Your task to perform on an android device: Check the news Image 0: 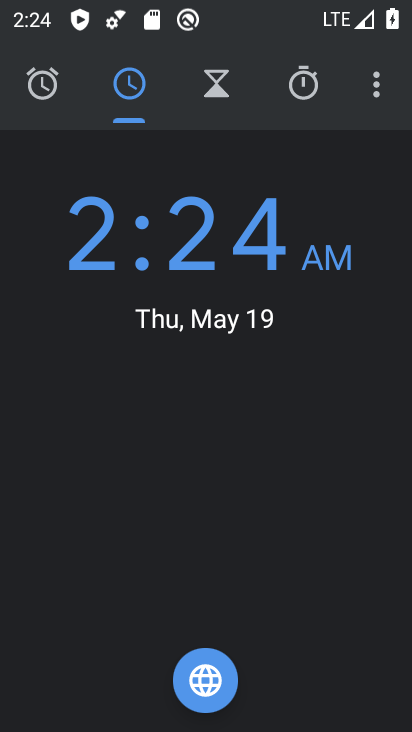
Step 0: press home button
Your task to perform on an android device: Check the news Image 1: 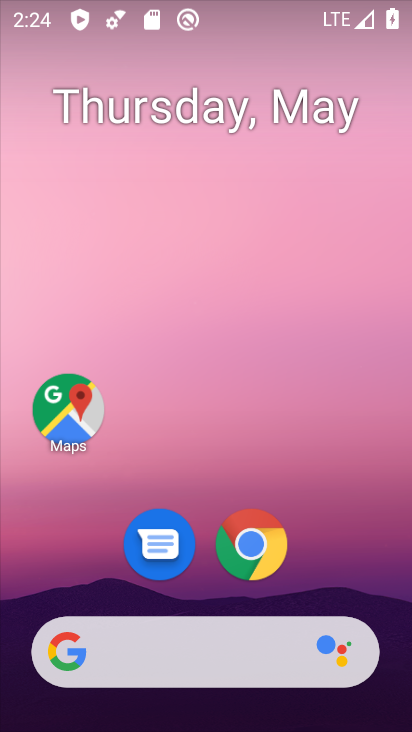
Step 1: drag from (263, 686) to (187, 202)
Your task to perform on an android device: Check the news Image 2: 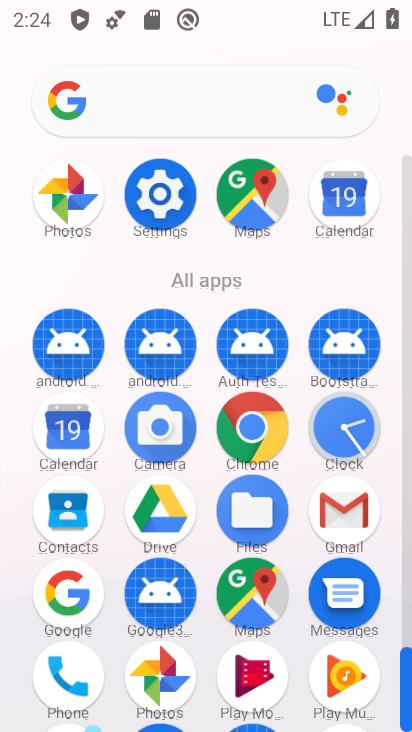
Step 2: click (257, 111)
Your task to perform on an android device: Check the news Image 3: 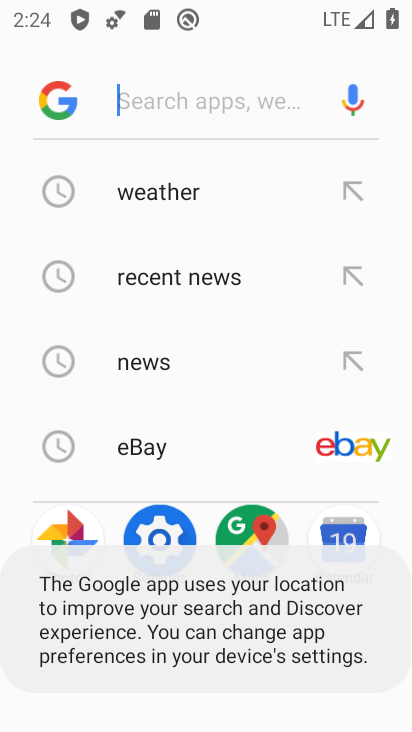
Step 3: click (192, 356)
Your task to perform on an android device: Check the news Image 4: 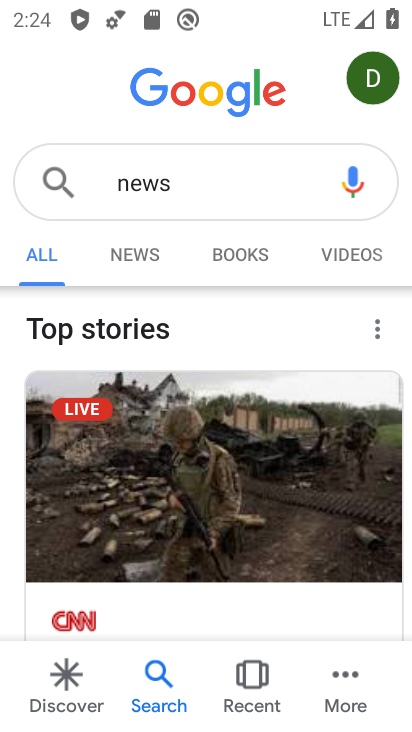
Step 4: task complete